Your task to perform on an android device: Play the last video I watched on Youtube Image 0: 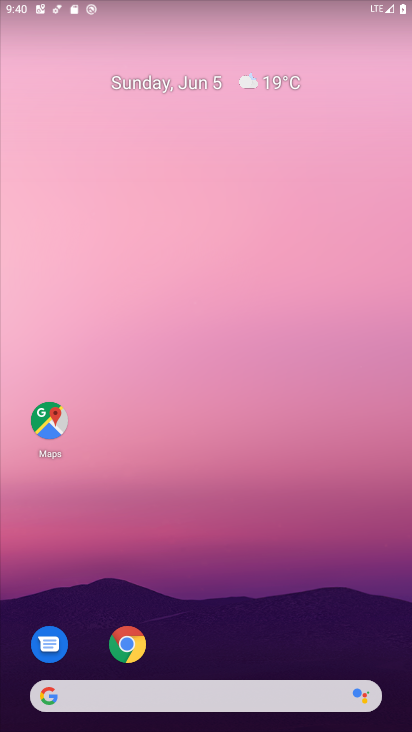
Step 0: drag from (318, 604) to (238, 111)
Your task to perform on an android device: Play the last video I watched on Youtube Image 1: 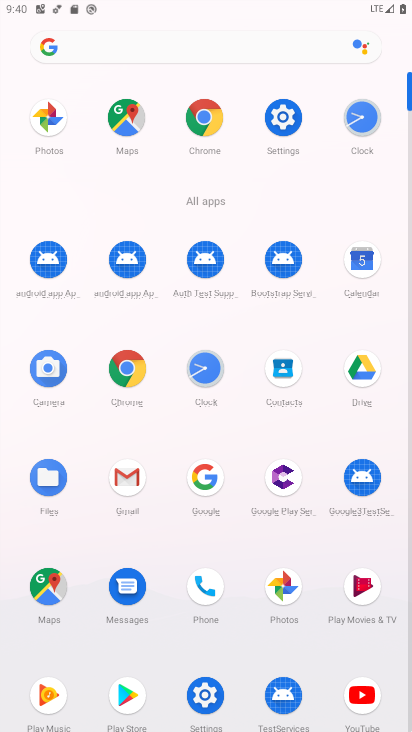
Step 1: click (288, 108)
Your task to perform on an android device: Play the last video I watched on Youtube Image 2: 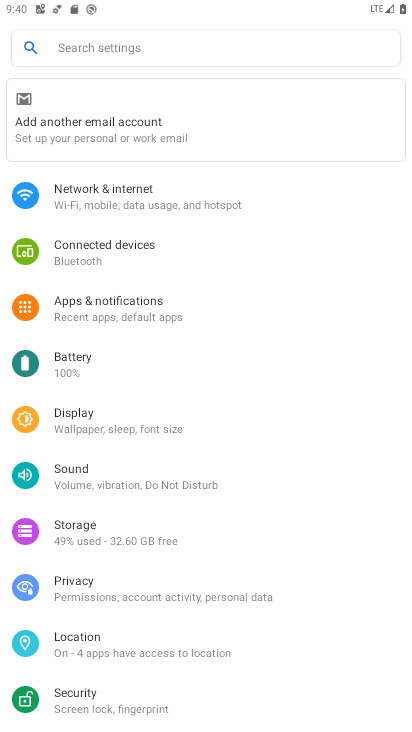
Step 2: click (105, 357)
Your task to perform on an android device: Play the last video I watched on Youtube Image 3: 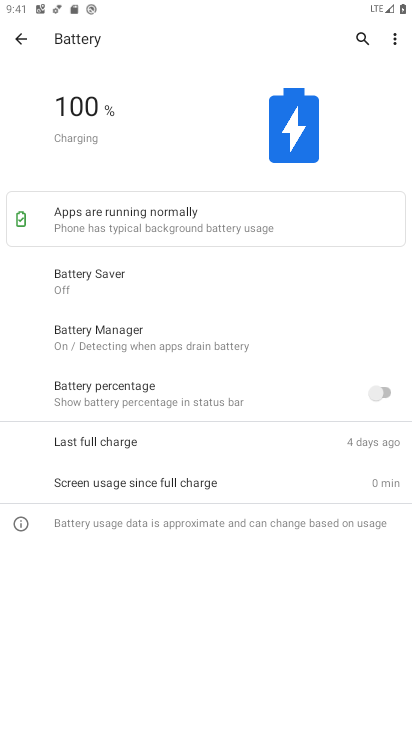
Step 3: press home button
Your task to perform on an android device: Play the last video I watched on Youtube Image 4: 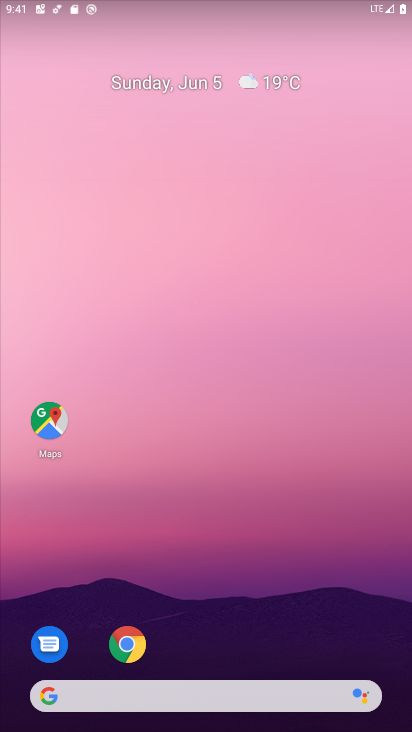
Step 4: drag from (267, 304) to (227, 35)
Your task to perform on an android device: Play the last video I watched on Youtube Image 5: 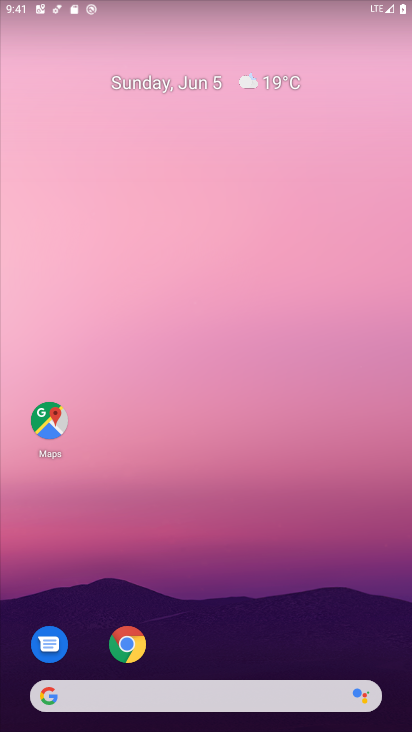
Step 5: drag from (307, 632) to (285, 77)
Your task to perform on an android device: Play the last video I watched on Youtube Image 6: 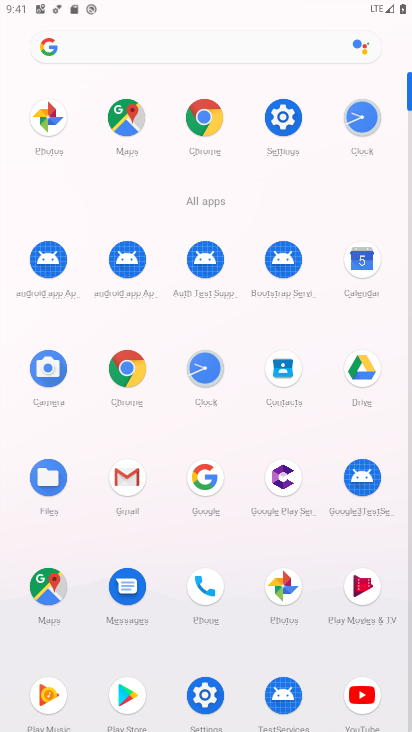
Step 6: click (368, 702)
Your task to perform on an android device: Play the last video I watched on Youtube Image 7: 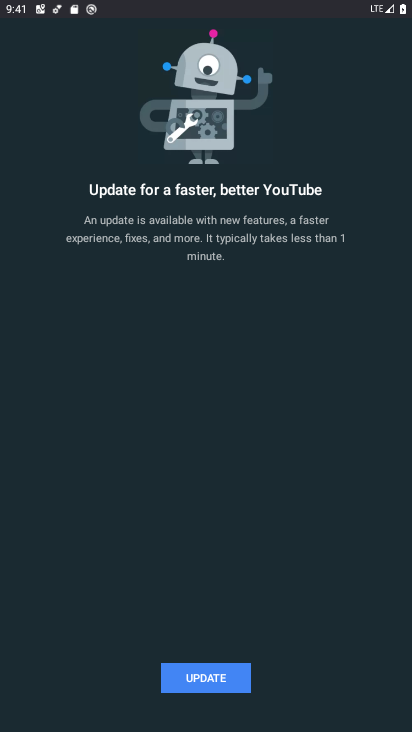
Step 7: click (238, 678)
Your task to perform on an android device: Play the last video I watched on Youtube Image 8: 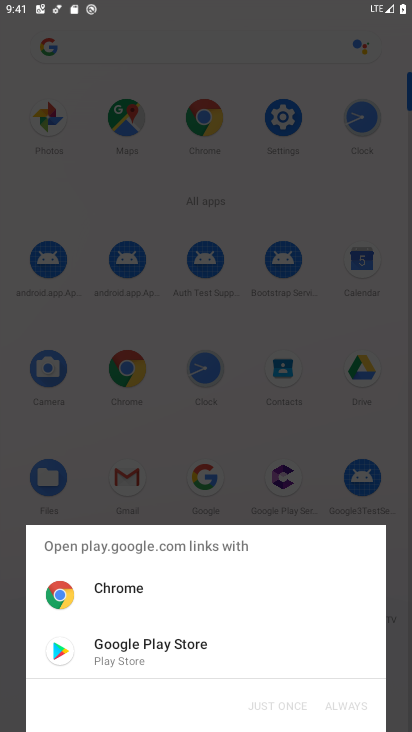
Step 8: click (163, 640)
Your task to perform on an android device: Play the last video I watched on Youtube Image 9: 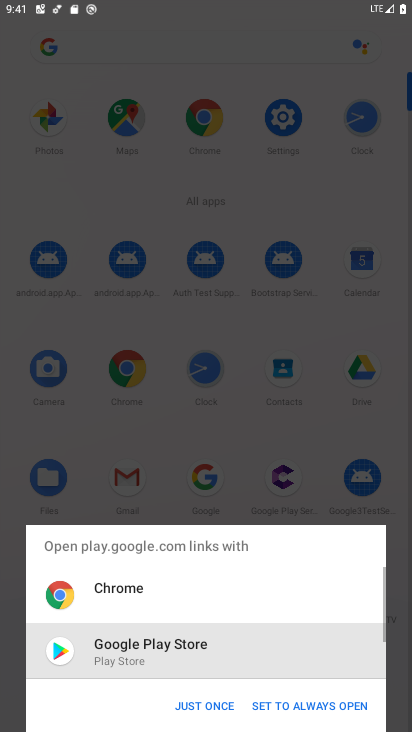
Step 9: click (188, 697)
Your task to perform on an android device: Play the last video I watched on Youtube Image 10: 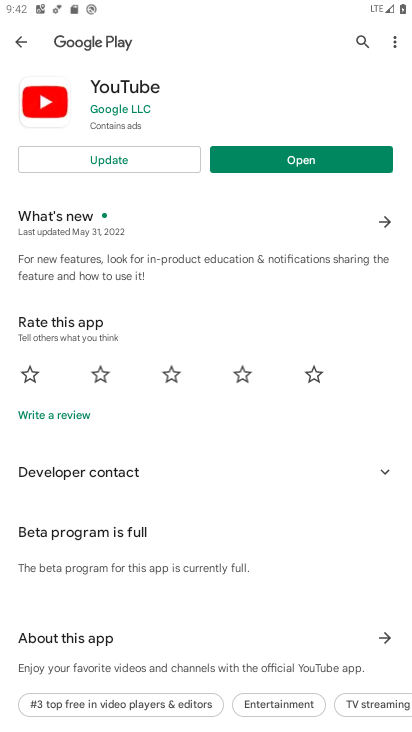
Step 10: click (146, 153)
Your task to perform on an android device: Play the last video I watched on Youtube Image 11: 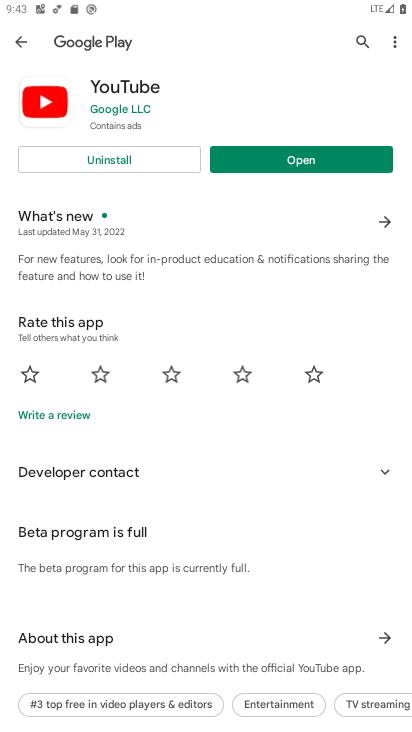
Step 11: click (328, 165)
Your task to perform on an android device: Play the last video I watched on Youtube Image 12: 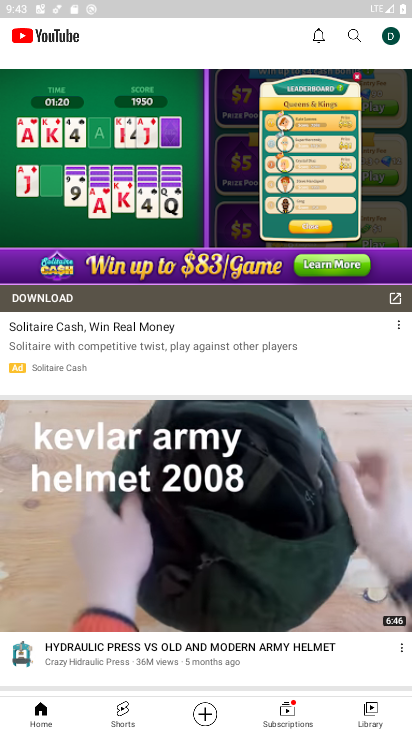
Step 12: click (371, 710)
Your task to perform on an android device: Play the last video I watched on Youtube Image 13: 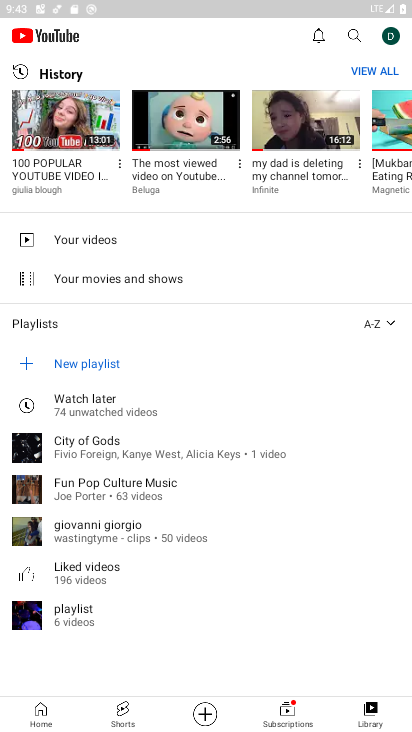
Step 13: click (70, 118)
Your task to perform on an android device: Play the last video I watched on Youtube Image 14: 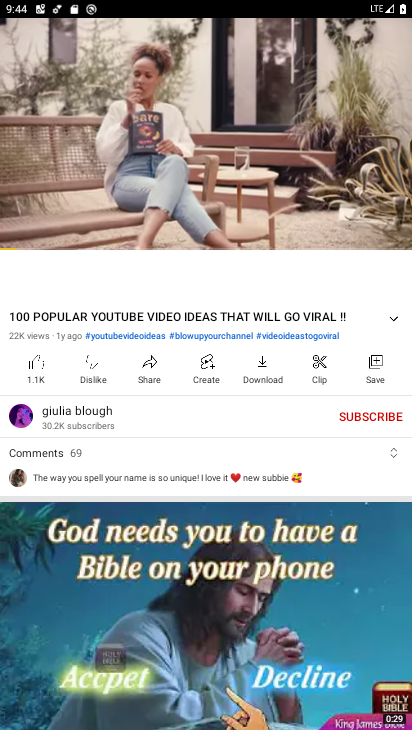
Step 14: click (223, 115)
Your task to perform on an android device: Play the last video I watched on Youtube Image 15: 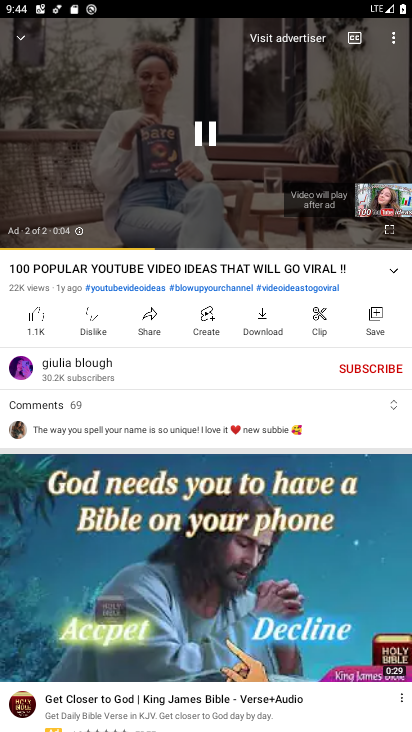
Step 15: click (218, 131)
Your task to perform on an android device: Play the last video I watched on Youtube Image 16: 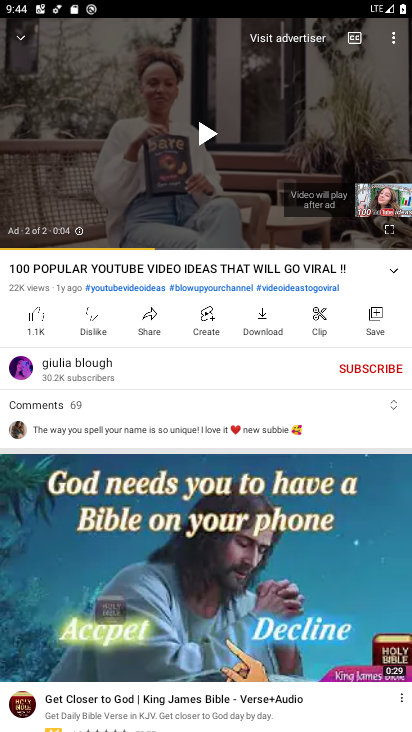
Step 16: task complete